Your task to perform on an android device: change the upload size in google photos Image 0: 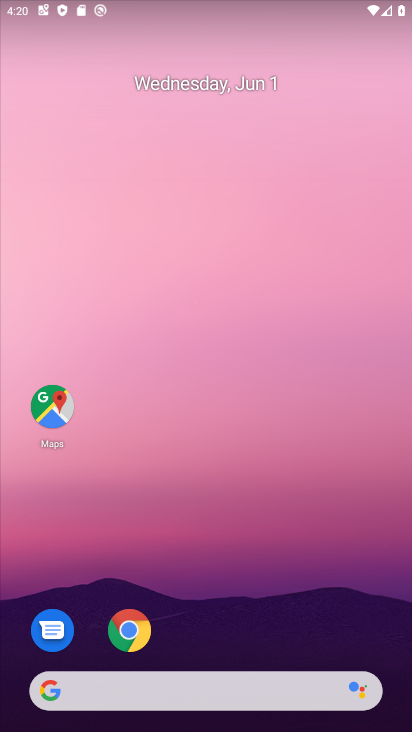
Step 0: drag from (249, 619) to (231, 3)
Your task to perform on an android device: change the upload size in google photos Image 1: 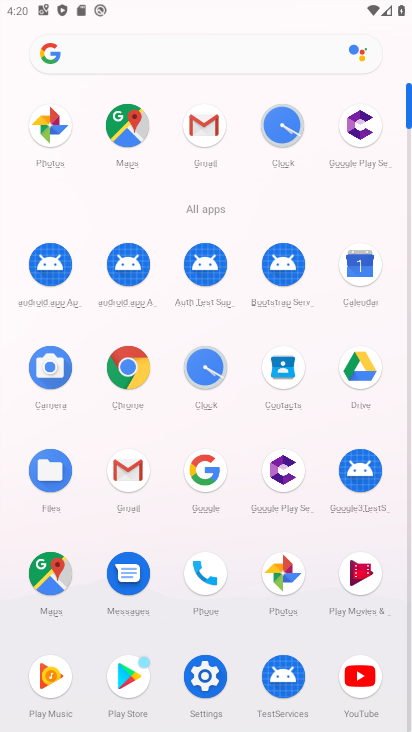
Step 1: click (282, 573)
Your task to perform on an android device: change the upload size in google photos Image 2: 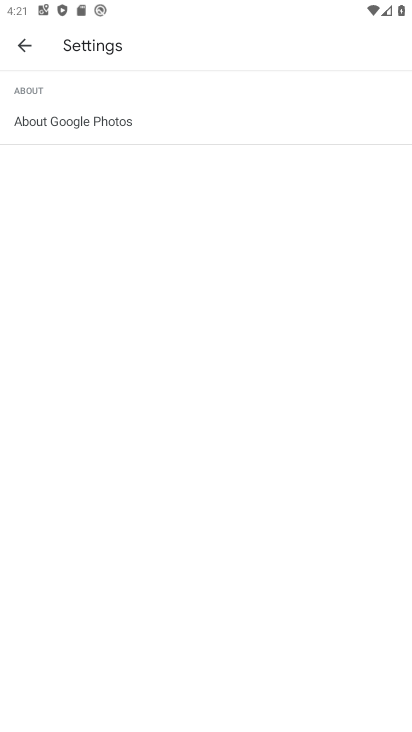
Step 2: press home button
Your task to perform on an android device: change the upload size in google photos Image 3: 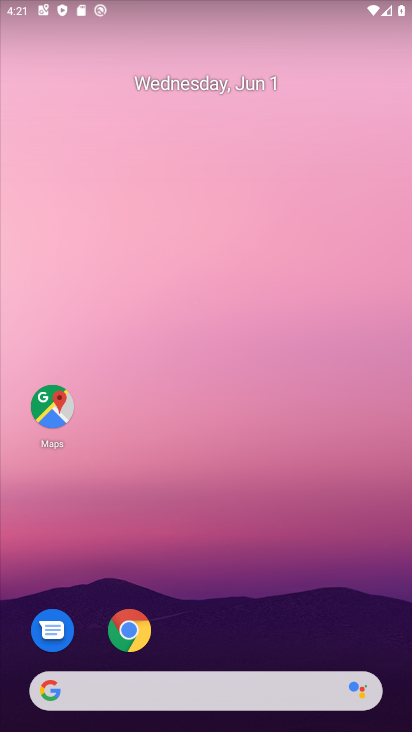
Step 3: drag from (243, 624) to (227, 2)
Your task to perform on an android device: change the upload size in google photos Image 4: 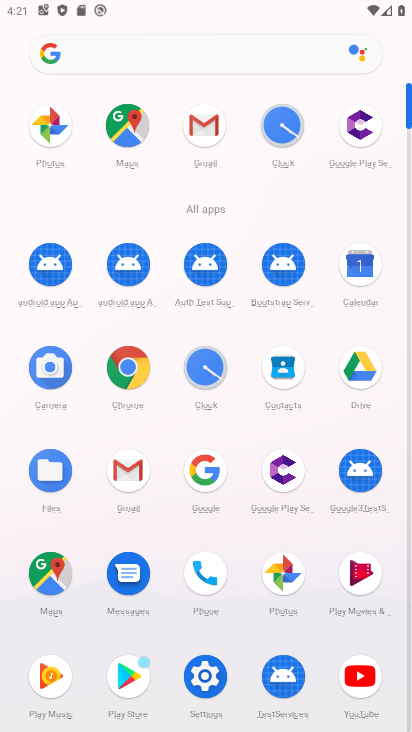
Step 4: click (279, 578)
Your task to perform on an android device: change the upload size in google photos Image 5: 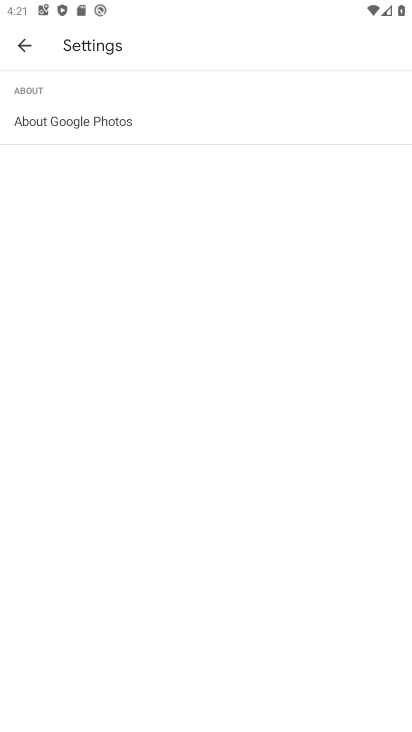
Step 5: click (32, 53)
Your task to perform on an android device: change the upload size in google photos Image 6: 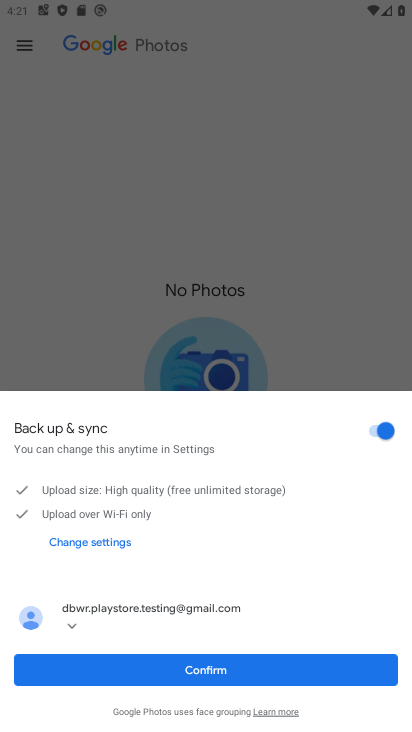
Step 6: click (227, 665)
Your task to perform on an android device: change the upload size in google photos Image 7: 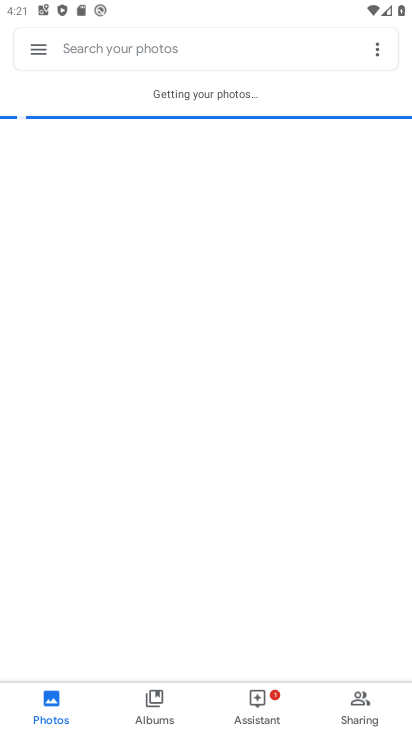
Step 7: click (42, 42)
Your task to perform on an android device: change the upload size in google photos Image 8: 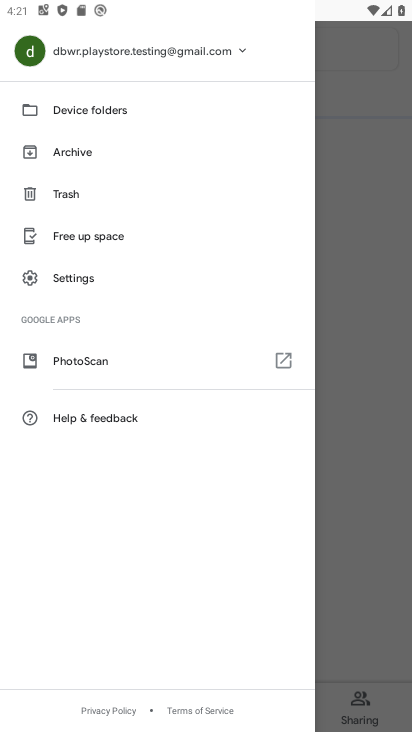
Step 8: click (83, 282)
Your task to perform on an android device: change the upload size in google photos Image 9: 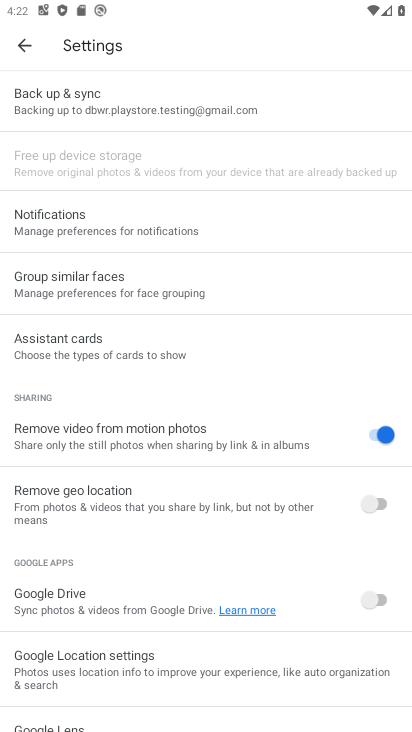
Step 9: click (112, 103)
Your task to perform on an android device: change the upload size in google photos Image 10: 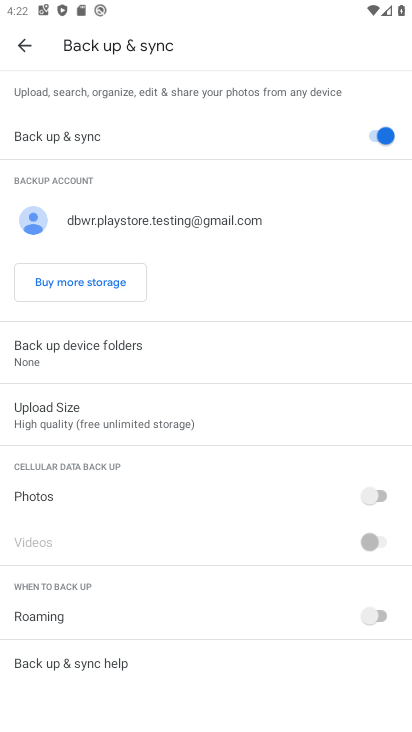
Step 10: click (107, 405)
Your task to perform on an android device: change the upload size in google photos Image 11: 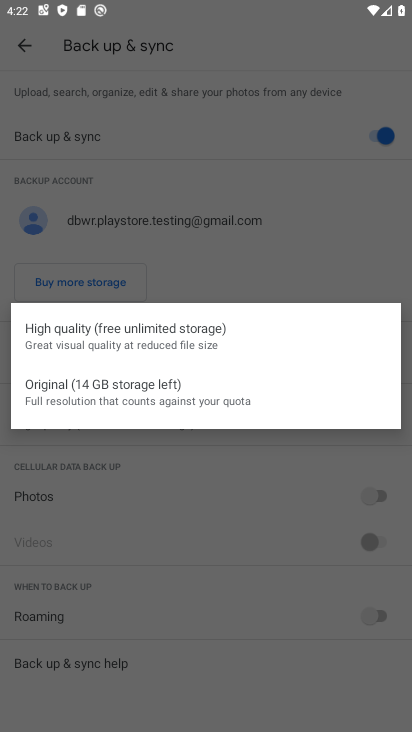
Step 11: click (111, 392)
Your task to perform on an android device: change the upload size in google photos Image 12: 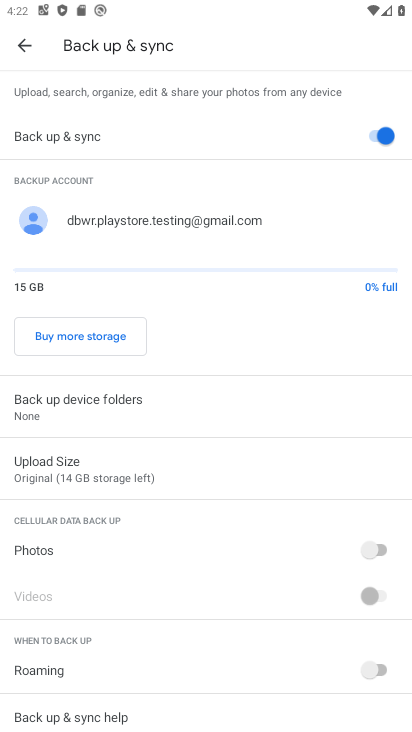
Step 12: task complete